Your task to perform on an android device: What's on my calendar for the rest of the month? Image 0: 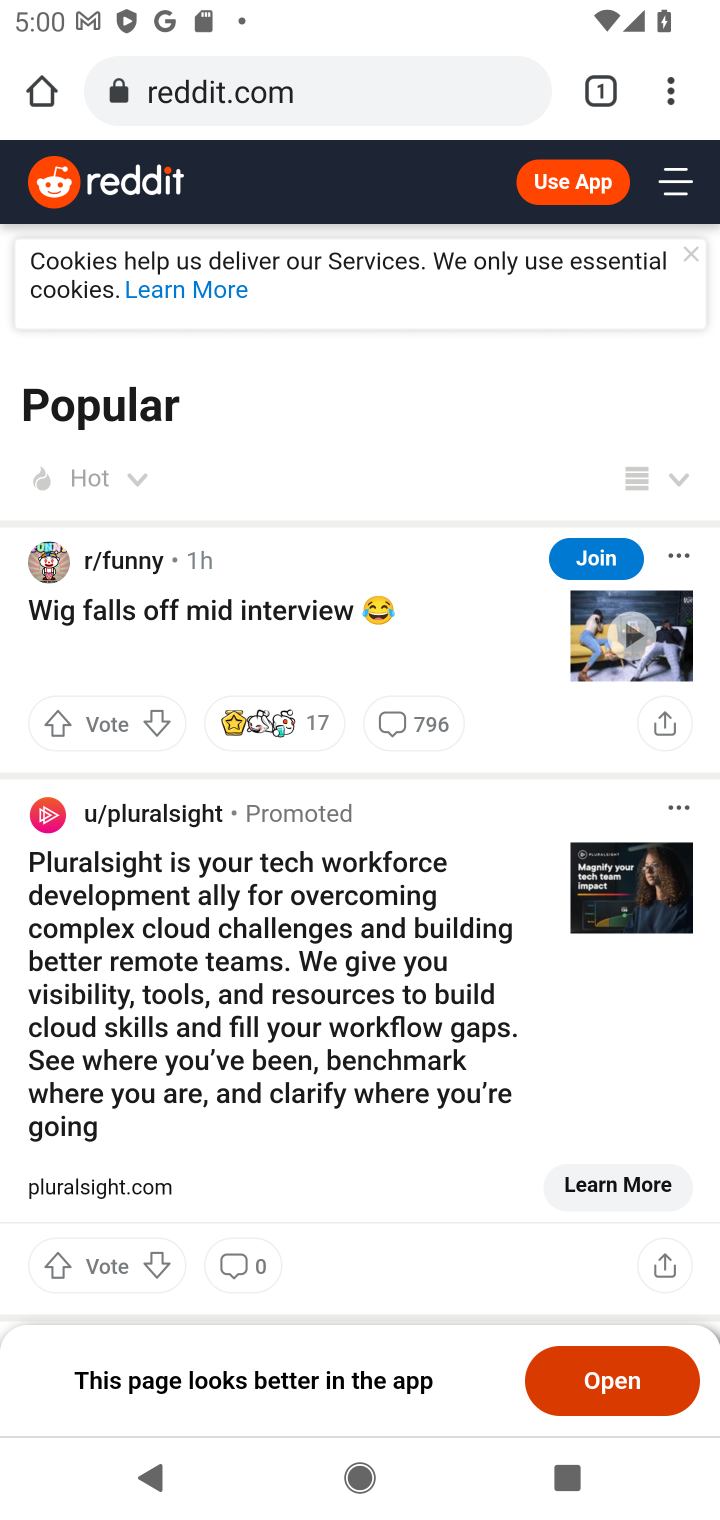
Step 0: press home button
Your task to perform on an android device: What's on my calendar for the rest of the month? Image 1: 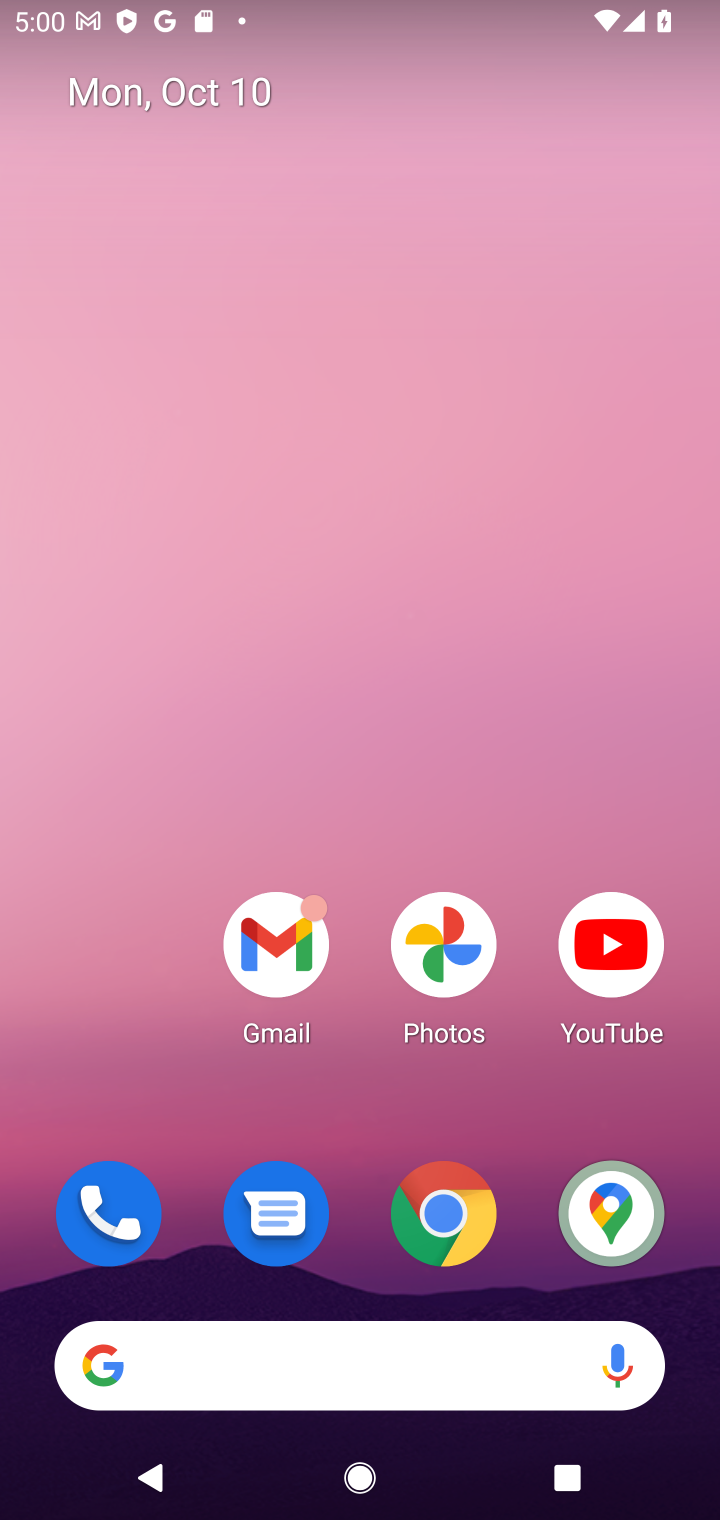
Step 1: drag from (359, 1144) to (432, 334)
Your task to perform on an android device: What's on my calendar for the rest of the month? Image 2: 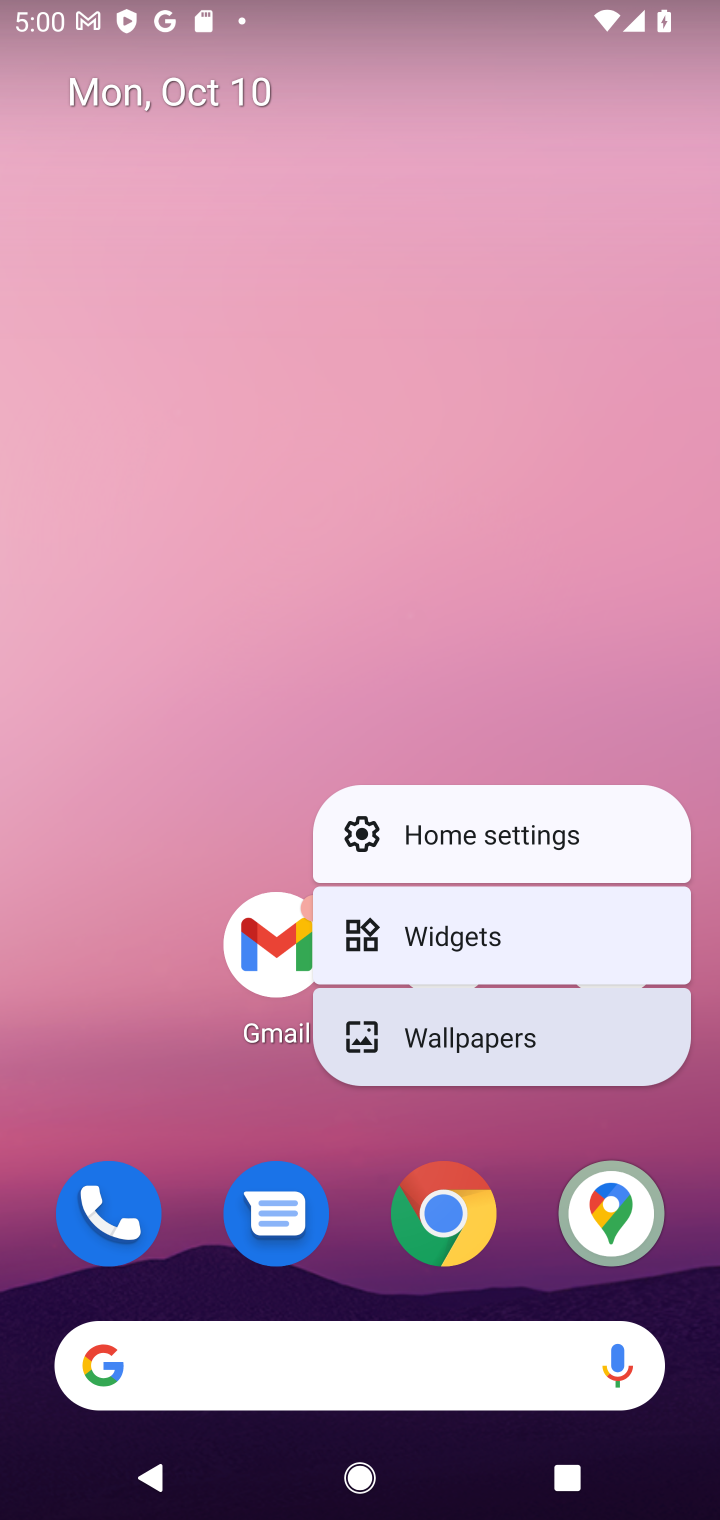
Step 2: click (428, 403)
Your task to perform on an android device: What's on my calendar for the rest of the month? Image 3: 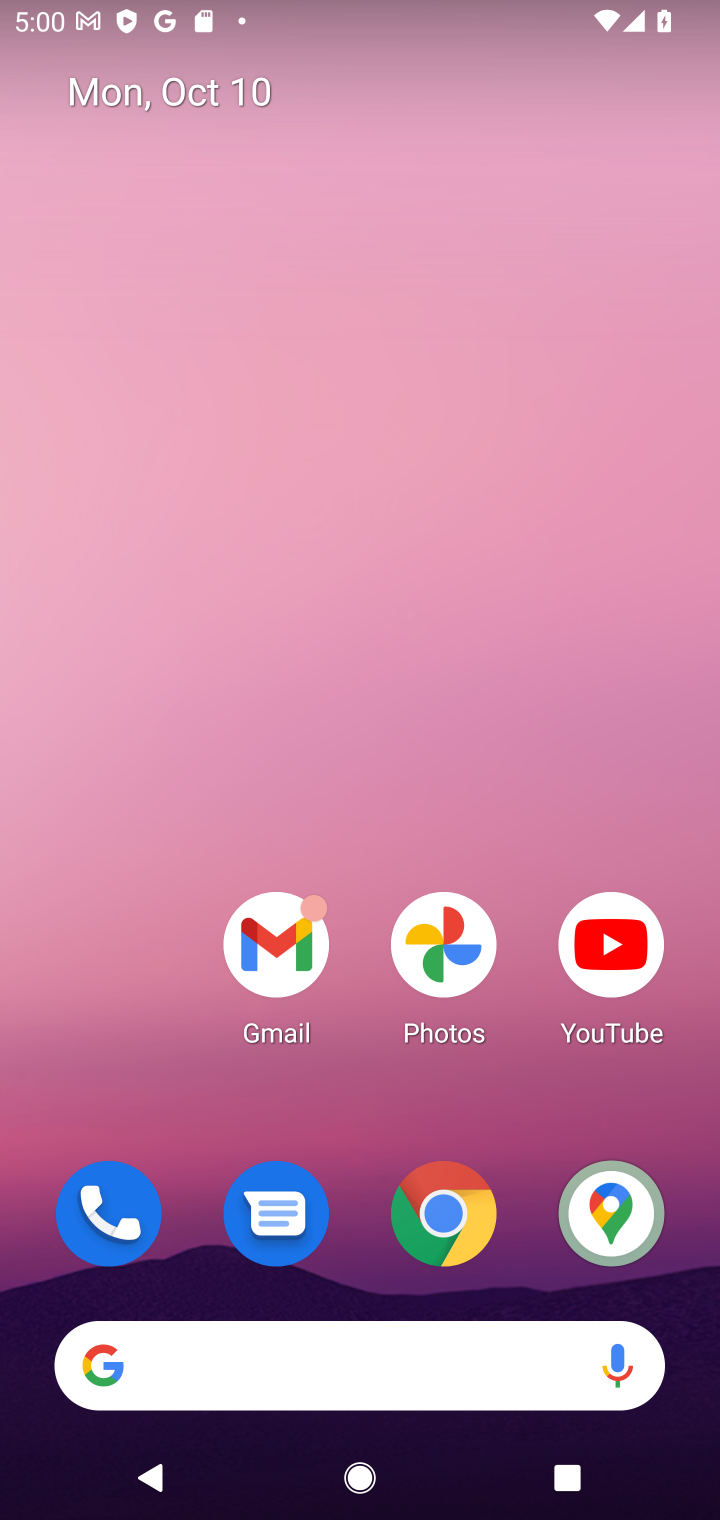
Step 3: drag from (373, 1153) to (467, 348)
Your task to perform on an android device: What's on my calendar for the rest of the month? Image 4: 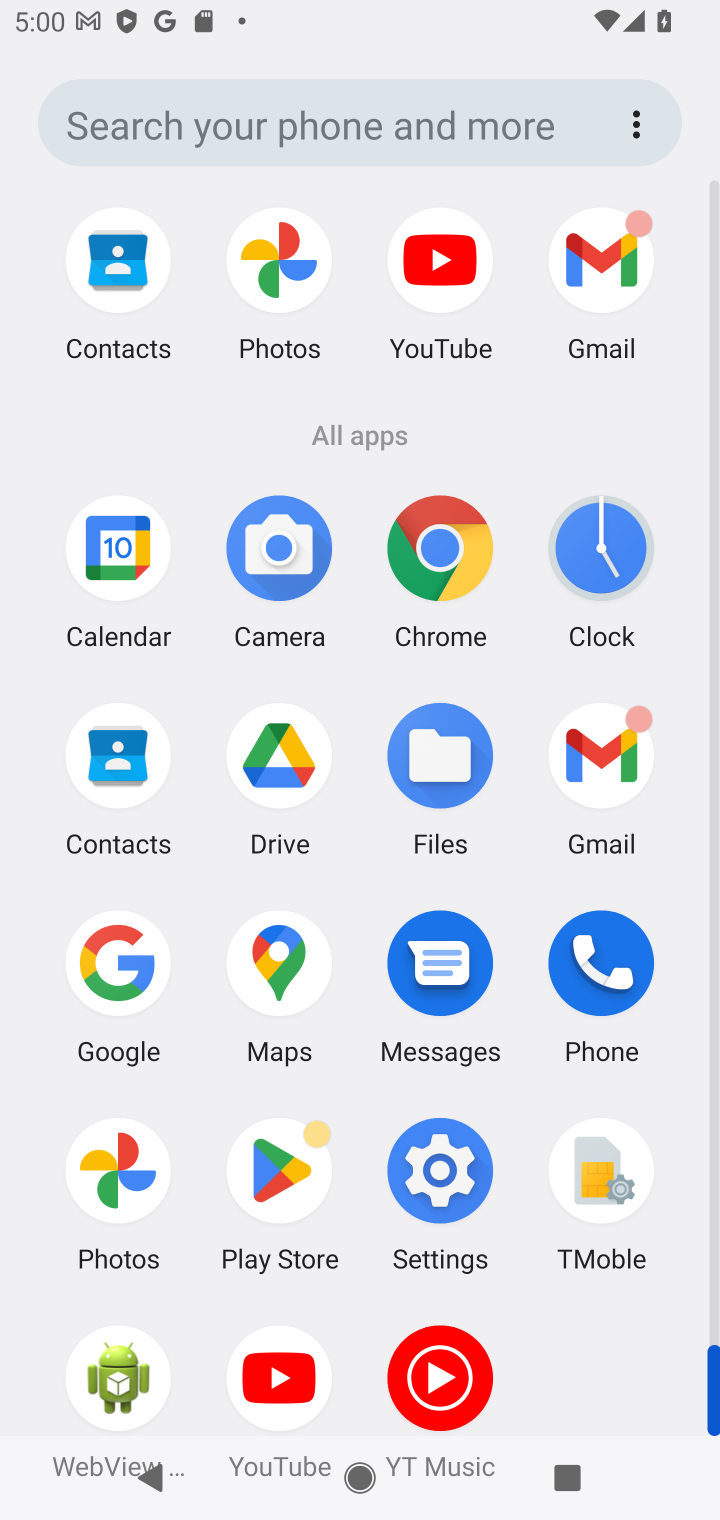
Step 4: click (139, 579)
Your task to perform on an android device: What's on my calendar for the rest of the month? Image 5: 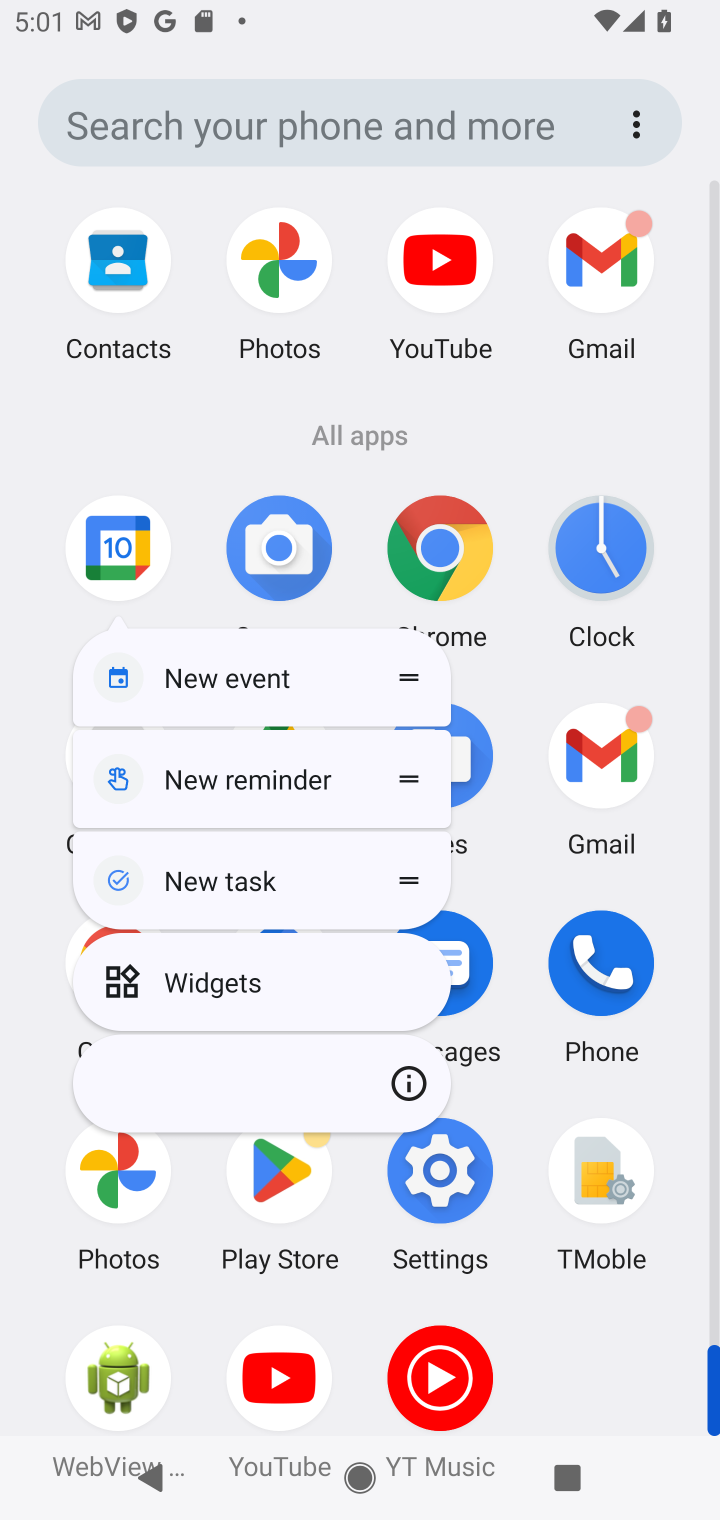
Step 5: click (139, 579)
Your task to perform on an android device: What's on my calendar for the rest of the month? Image 6: 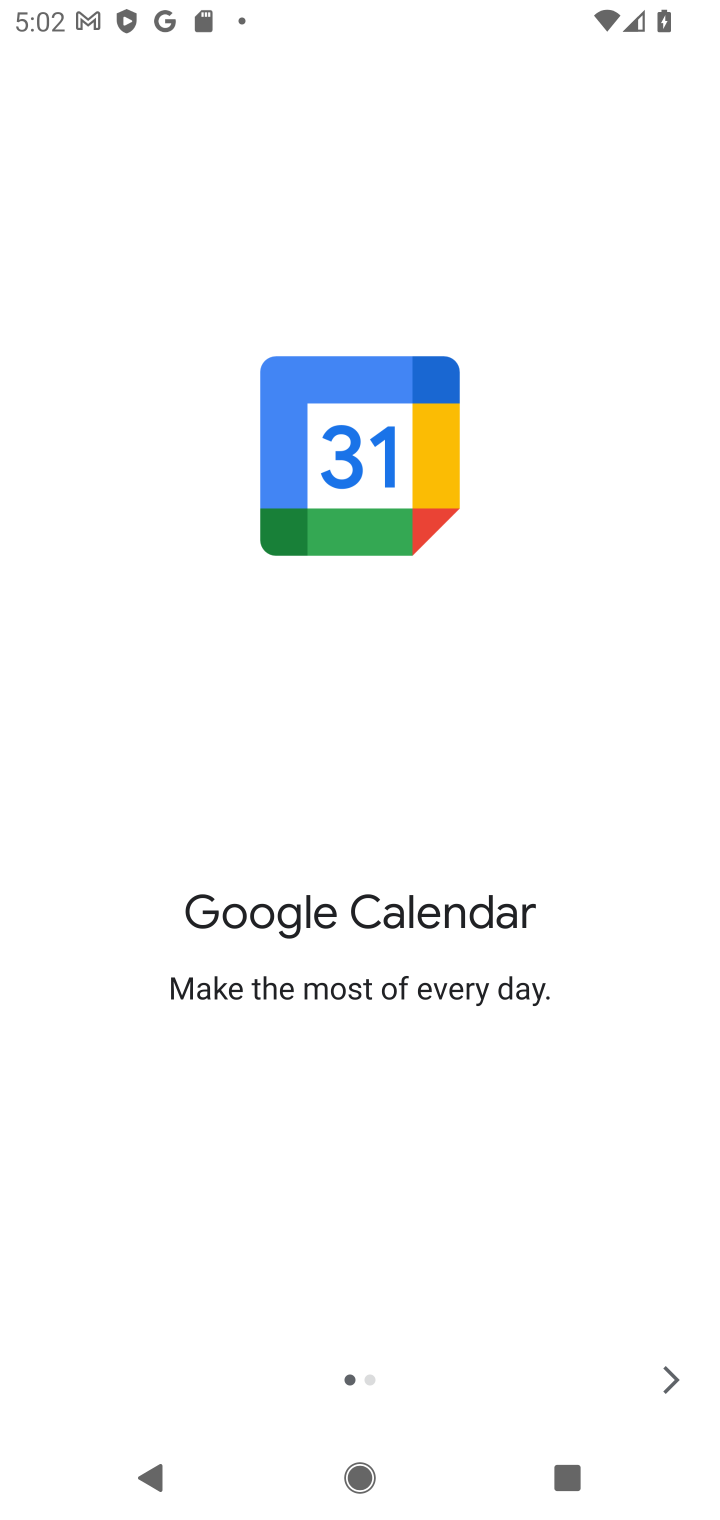
Step 6: click (663, 1364)
Your task to perform on an android device: What's on my calendar for the rest of the month? Image 7: 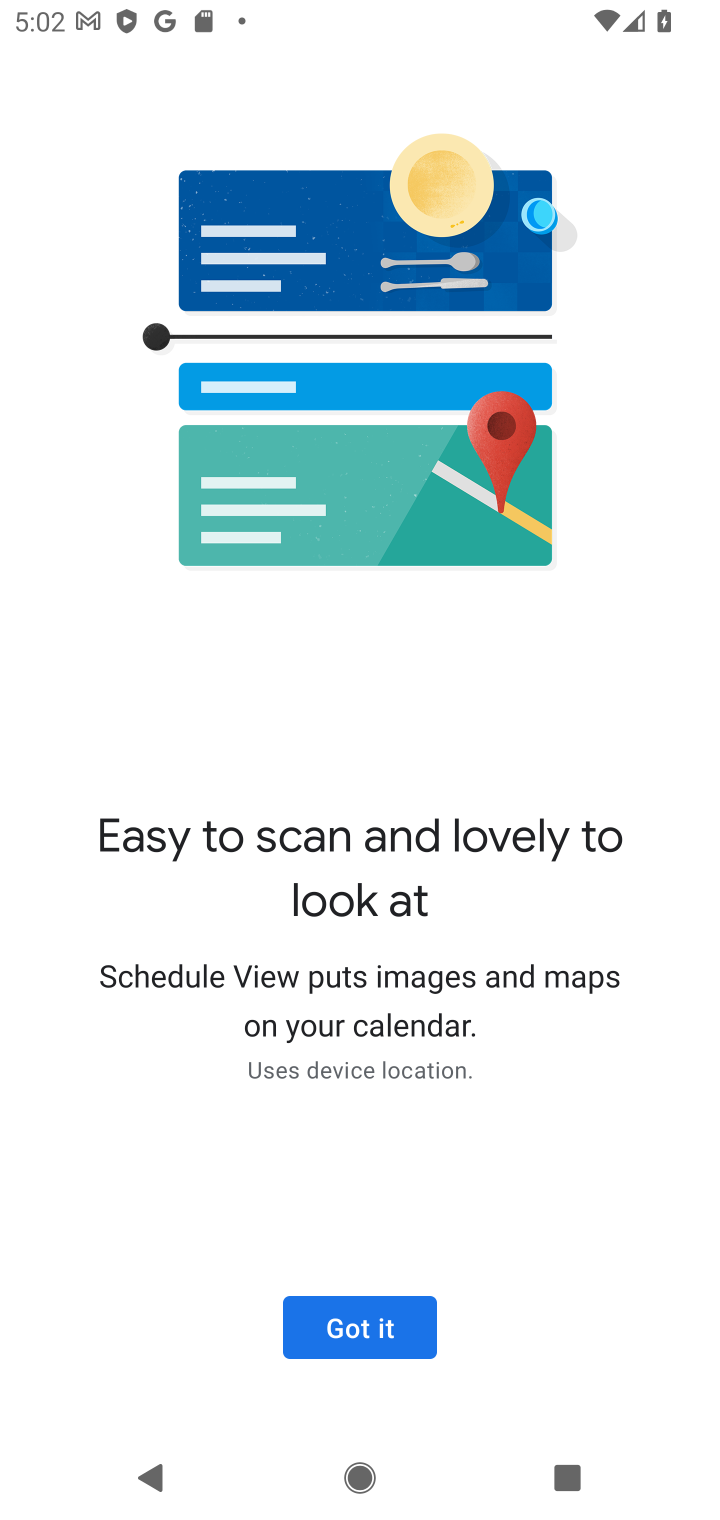
Step 7: click (431, 1319)
Your task to perform on an android device: What's on my calendar for the rest of the month? Image 8: 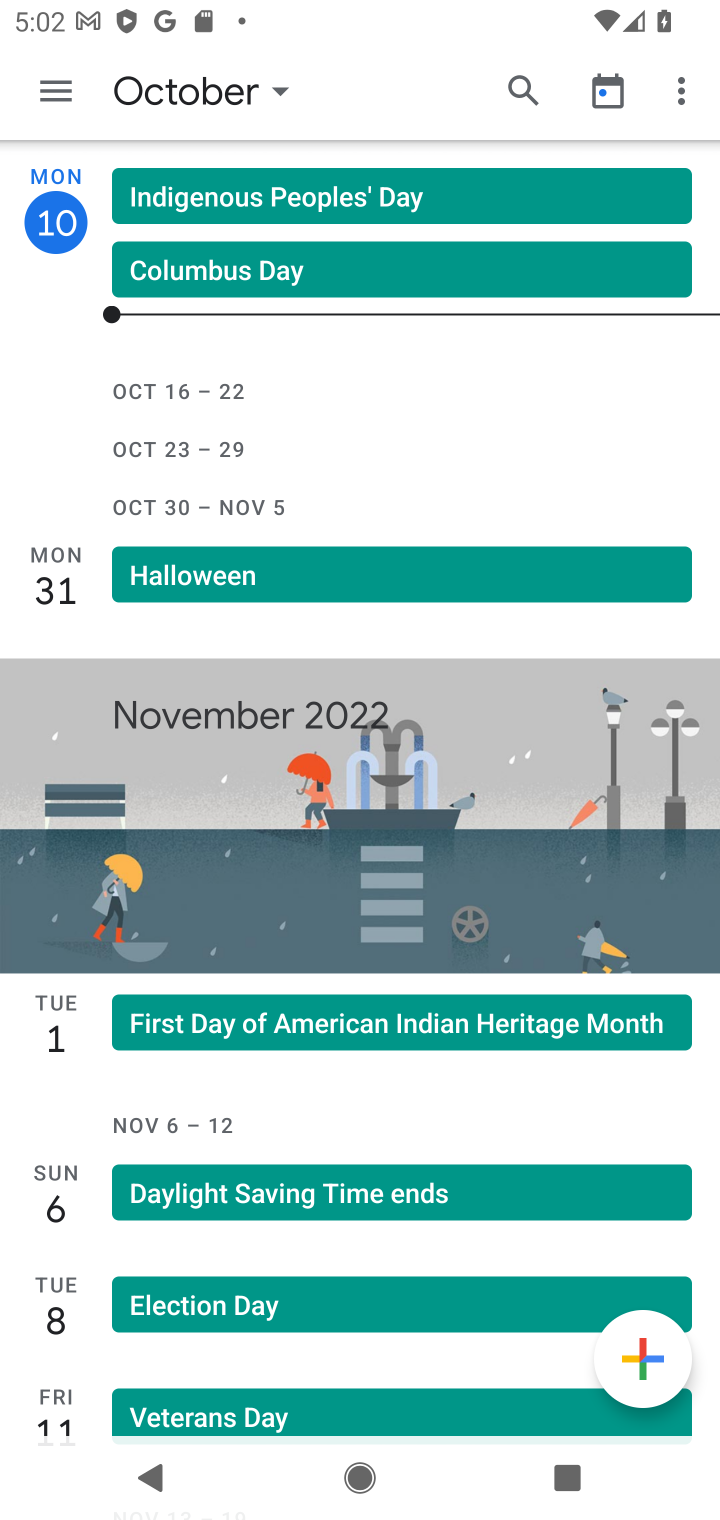
Step 8: click (271, 103)
Your task to perform on an android device: What's on my calendar for the rest of the month? Image 9: 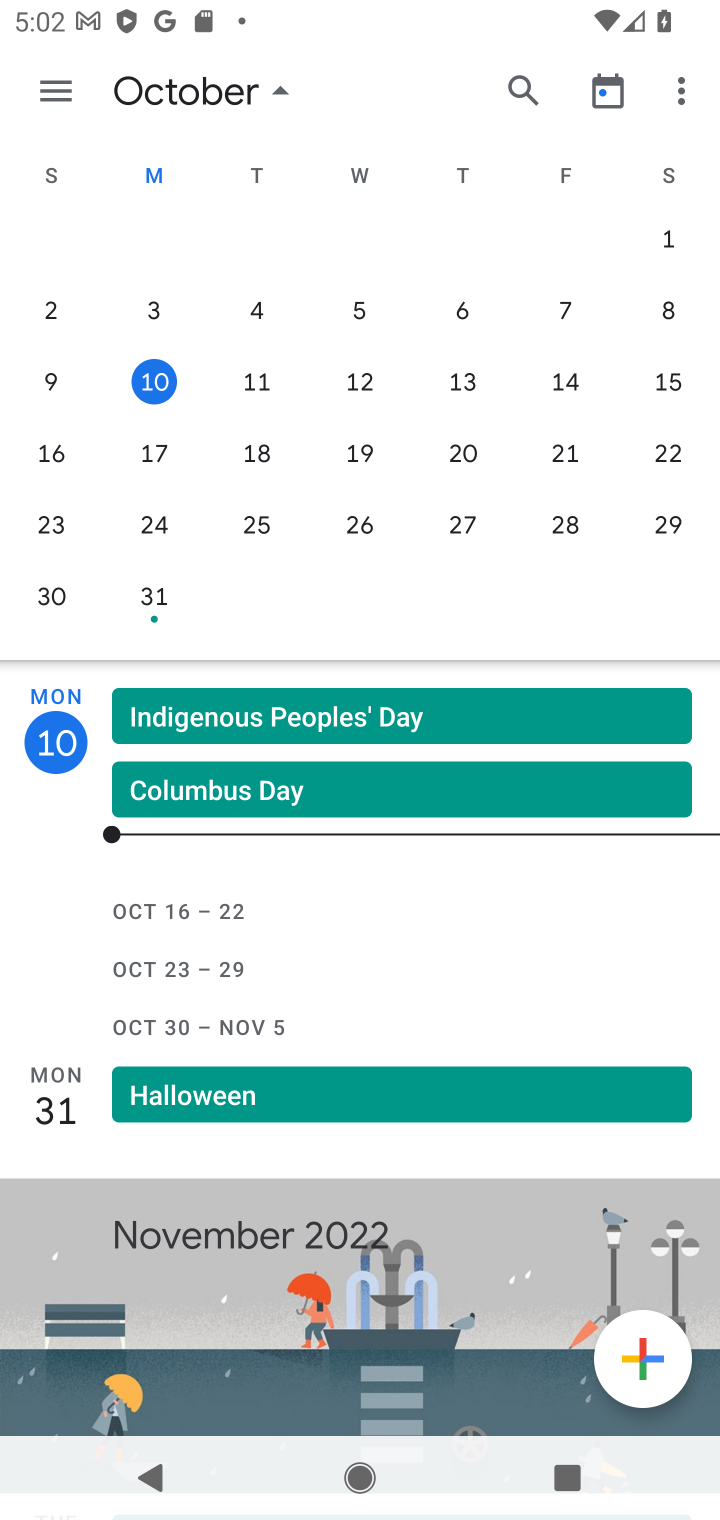
Step 9: click (144, 582)
Your task to perform on an android device: What's on my calendar for the rest of the month? Image 10: 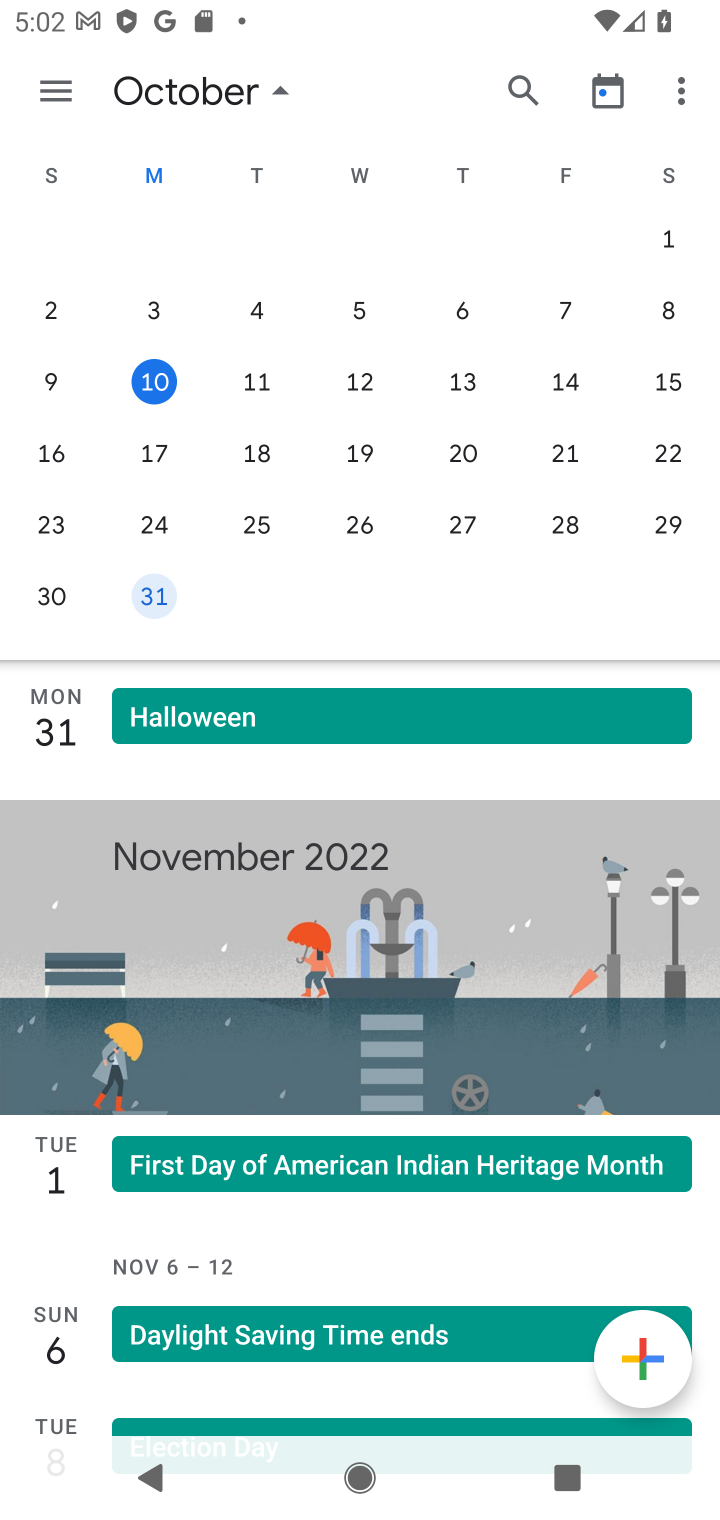
Step 10: click (46, 517)
Your task to perform on an android device: What's on my calendar for the rest of the month? Image 11: 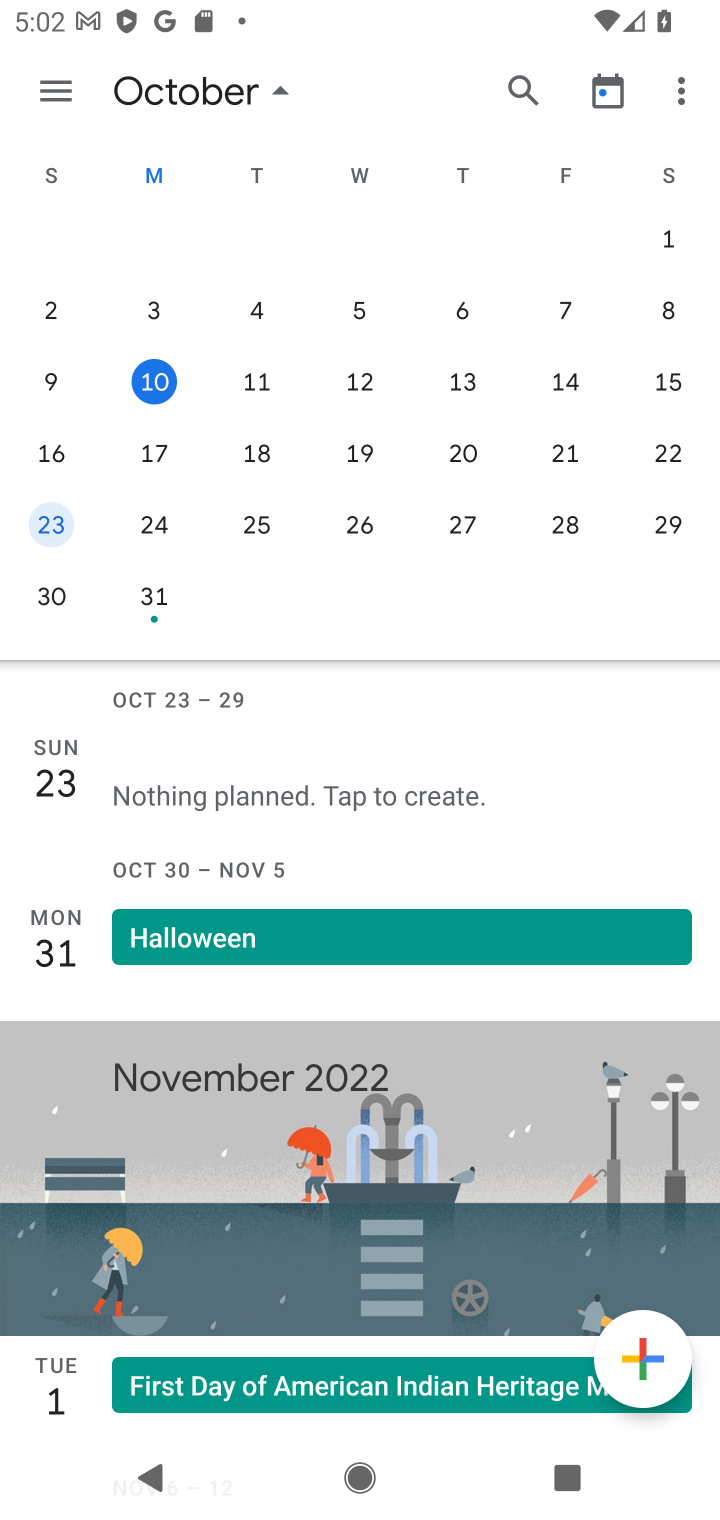
Step 11: task complete